Your task to perform on an android device: Open accessibility settings Image 0: 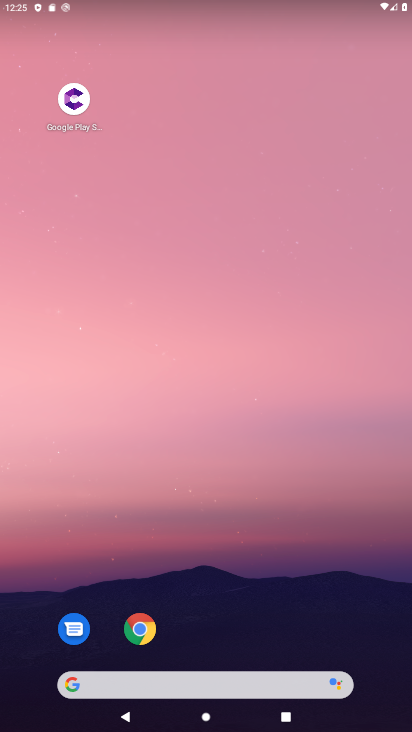
Step 0: drag from (182, 581) to (171, 43)
Your task to perform on an android device: Open accessibility settings Image 1: 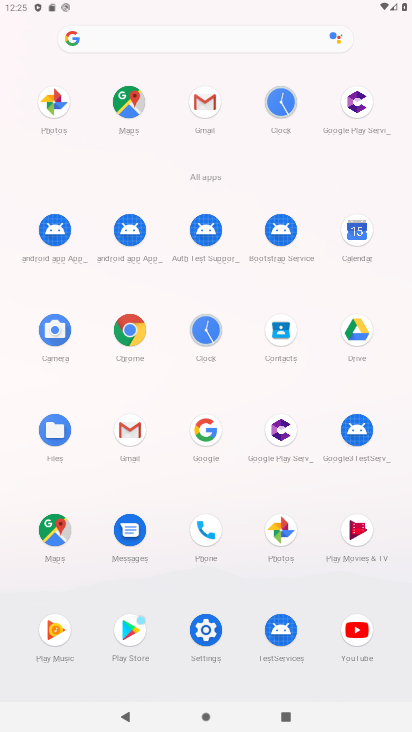
Step 1: click (203, 634)
Your task to perform on an android device: Open accessibility settings Image 2: 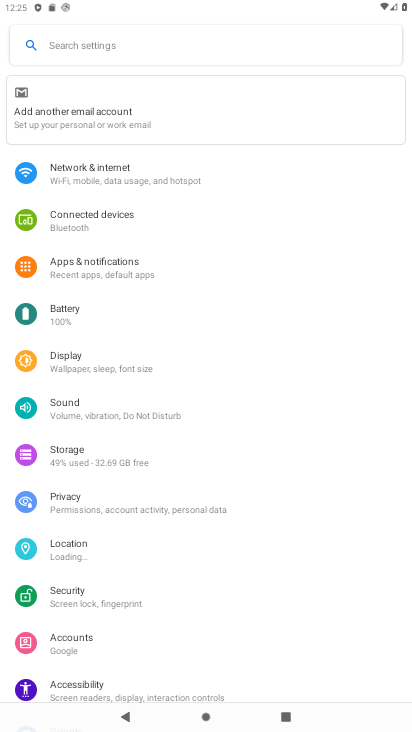
Step 2: click (89, 687)
Your task to perform on an android device: Open accessibility settings Image 3: 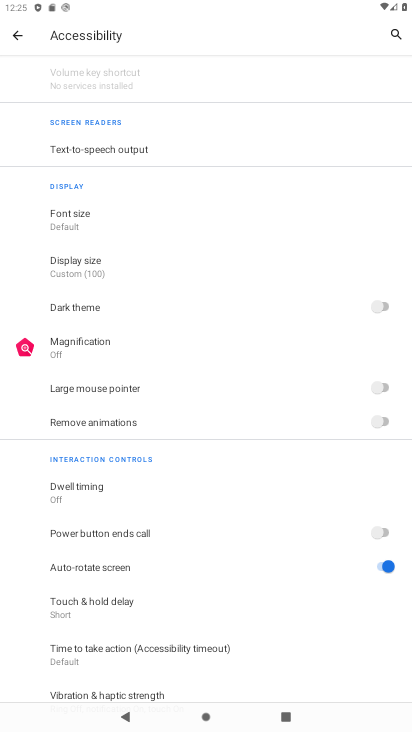
Step 3: task complete